Your task to perform on an android device: see sites visited before in the chrome app Image 0: 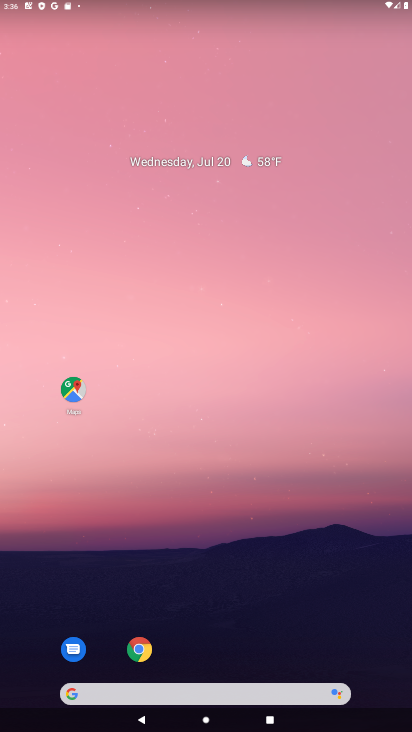
Step 0: click (140, 652)
Your task to perform on an android device: see sites visited before in the chrome app Image 1: 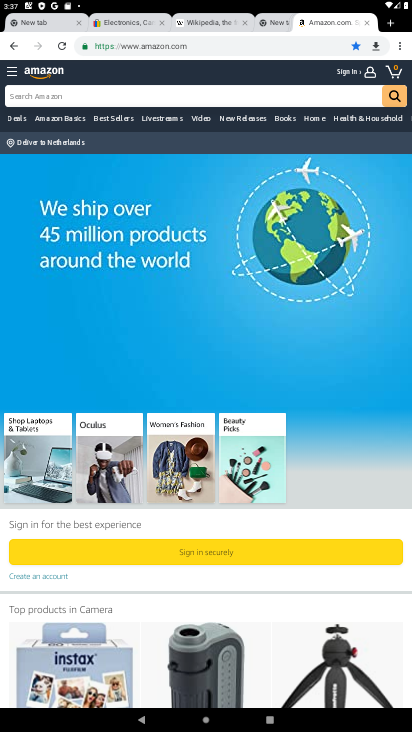
Step 1: click (400, 45)
Your task to perform on an android device: see sites visited before in the chrome app Image 2: 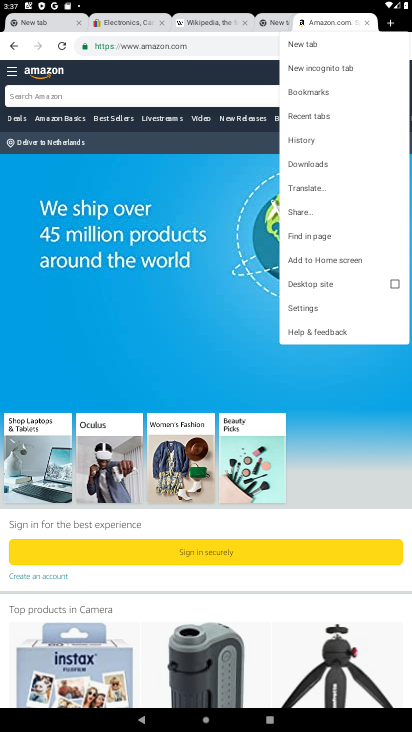
Step 2: click (315, 115)
Your task to perform on an android device: see sites visited before in the chrome app Image 3: 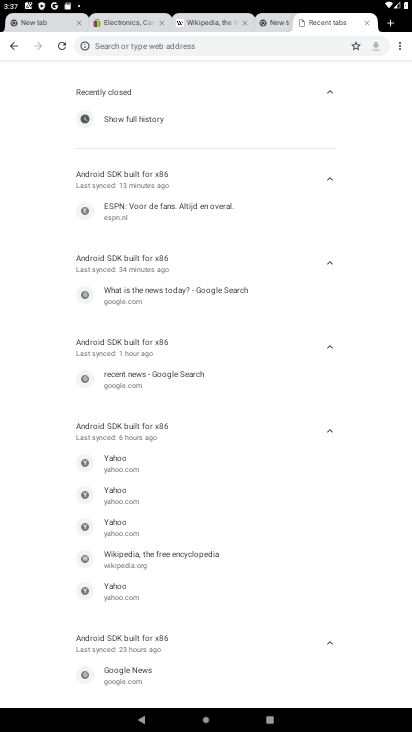
Step 3: task complete